Your task to perform on an android device: Open my contact list Image 0: 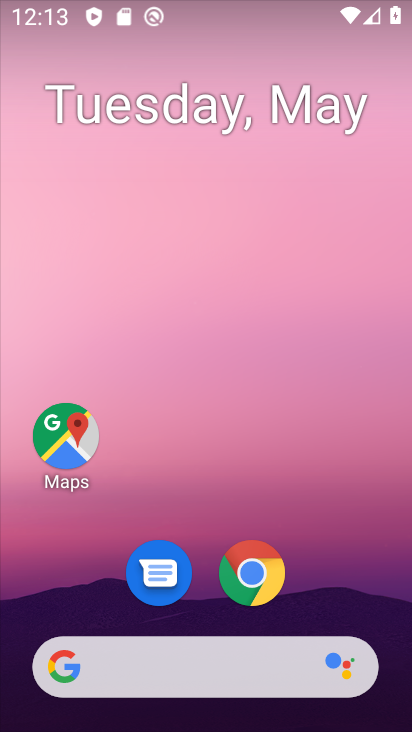
Step 0: drag from (362, 533) to (411, 349)
Your task to perform on an android device: Open my contact list Image 1: 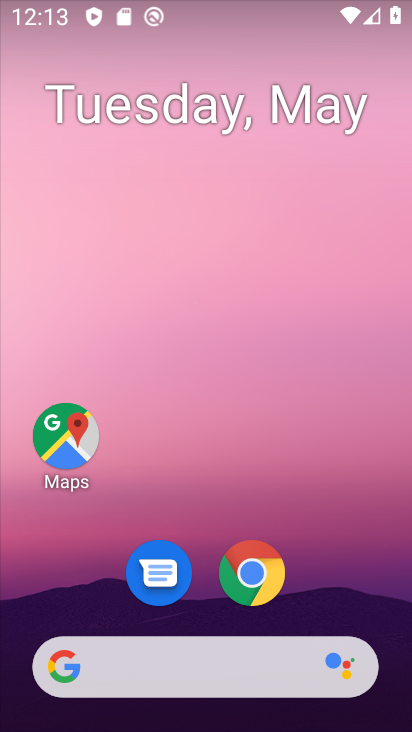
Step 1: drag from (338, 564) to (405, 70)
Your task to perform on an android device: Open my contact list Image 2: 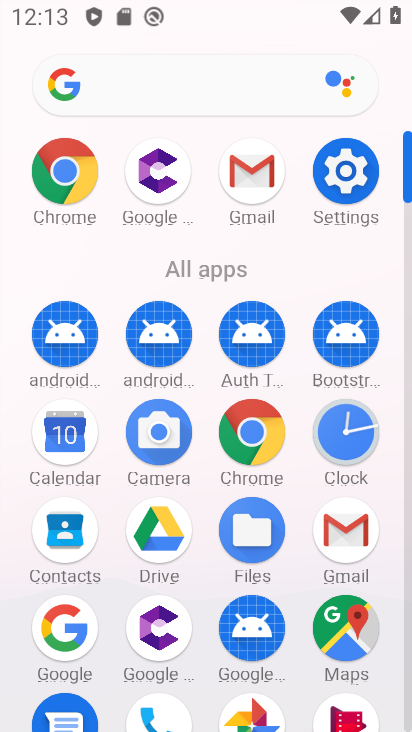
Step 2: click (56, 536)
Your task to perform on an android device: Open my contact list Image 3: 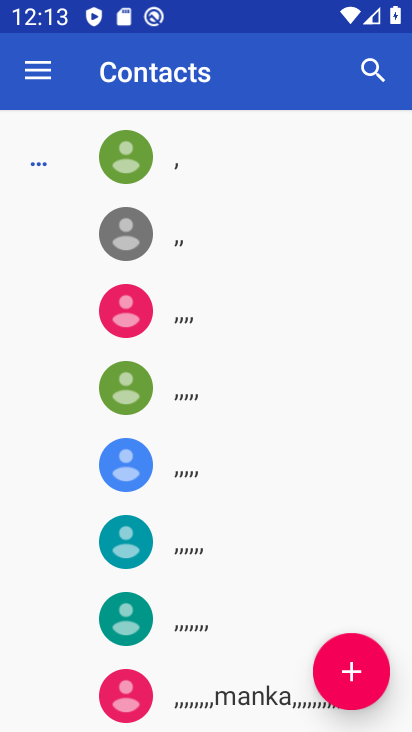
Step 3: task complete